Your task to perform on an android device: open app "Facebook Messenger" Image 0: 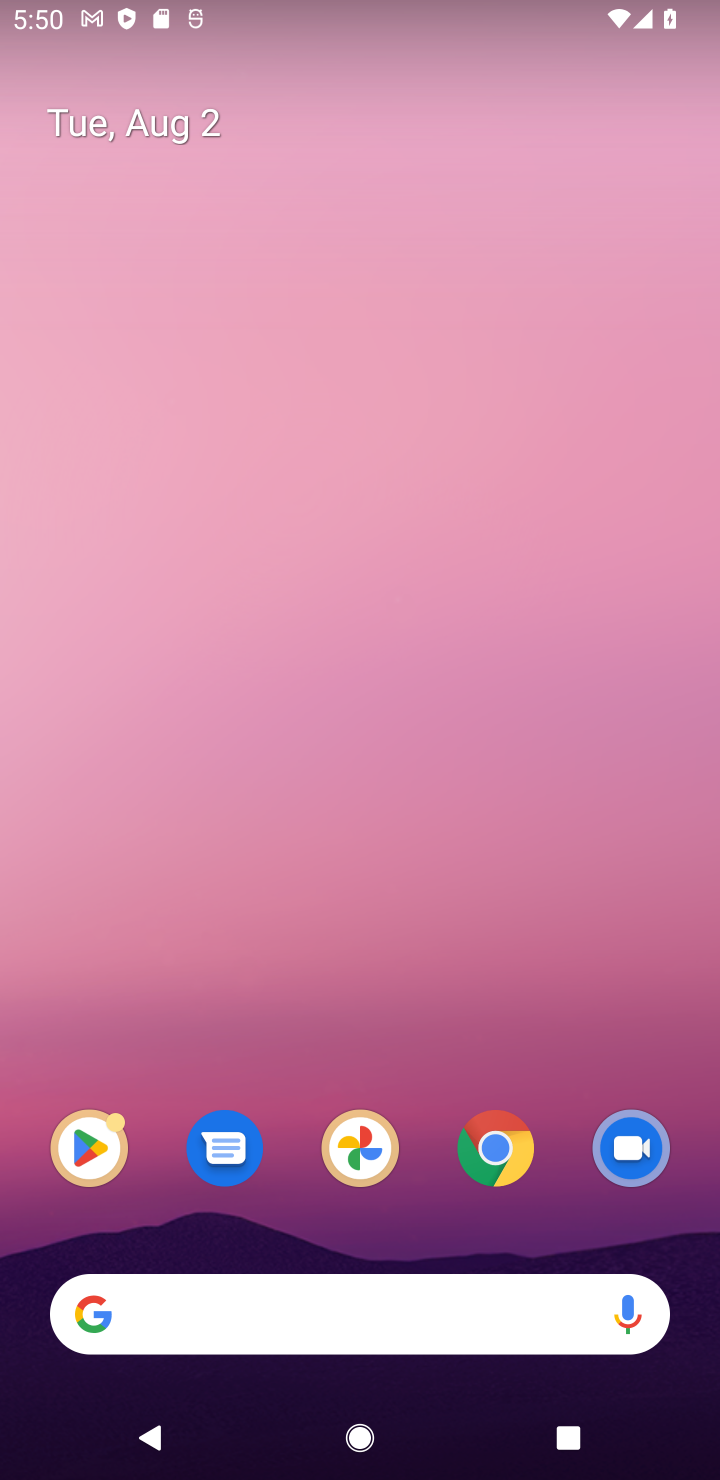
Step 0: drag from (681, 1228) to (383, 187)
Your task to perform on an android device: open app "Facebook Messenger" Image 1: 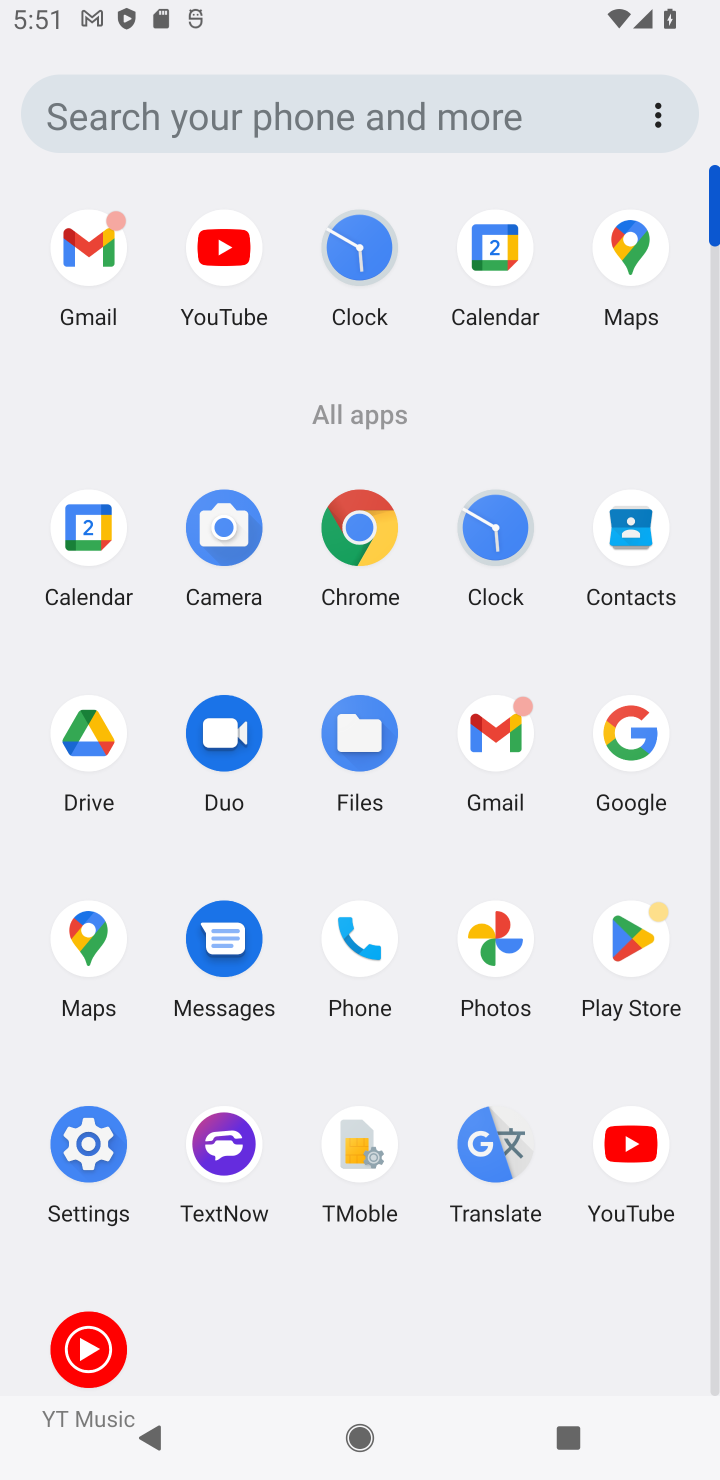
Step 1: click (618, 922)
Your task to perform on an android device: open app "Facebook Messenger" Image 2: 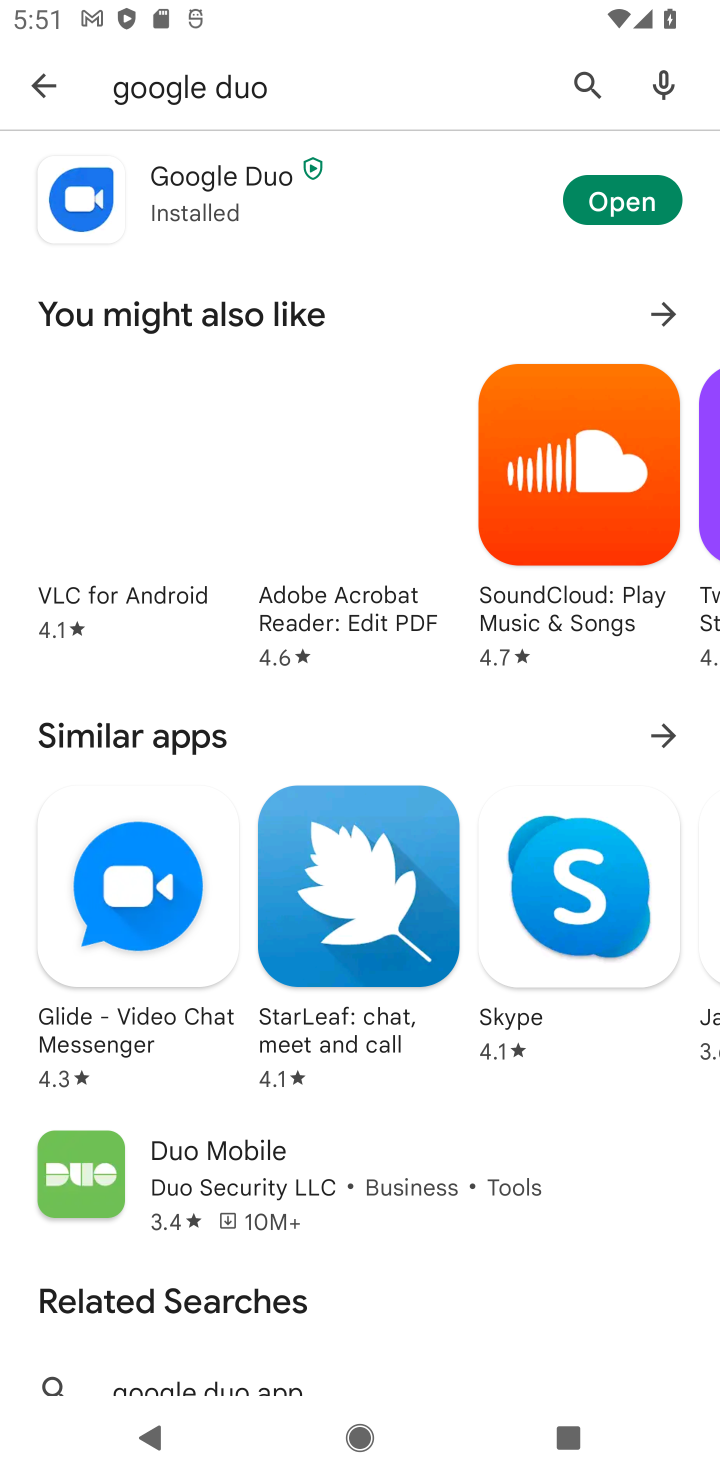
Step 2: press back button
Your task to perform on an android device: open app "Facebook Messenger" Image 3: 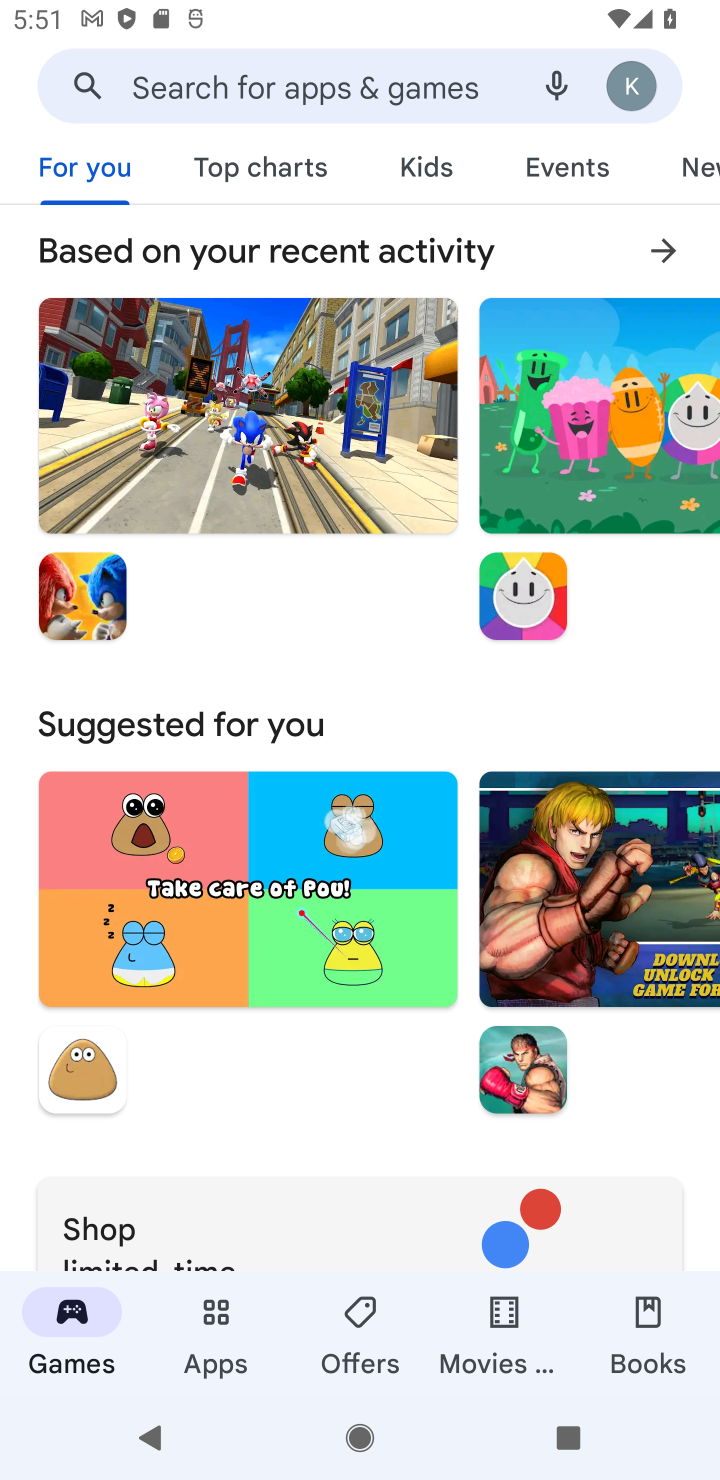
Step 3: click (196, 82)
Your task to perform on an android device: open app "Facebook Messenger" Image 4: 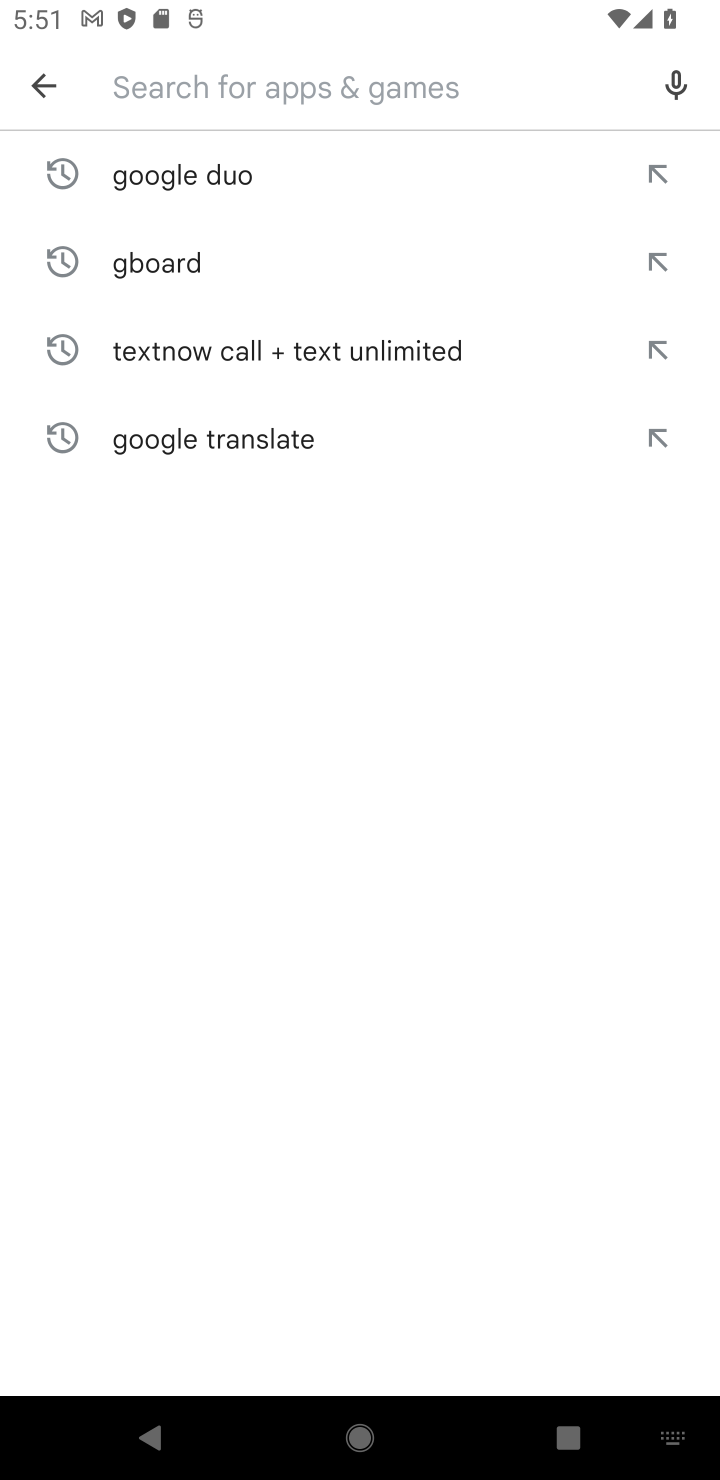
Step 4: type "Facebook Messenger"
Your task to perform on an android device: open app "Facebook Messenger" Image 5: 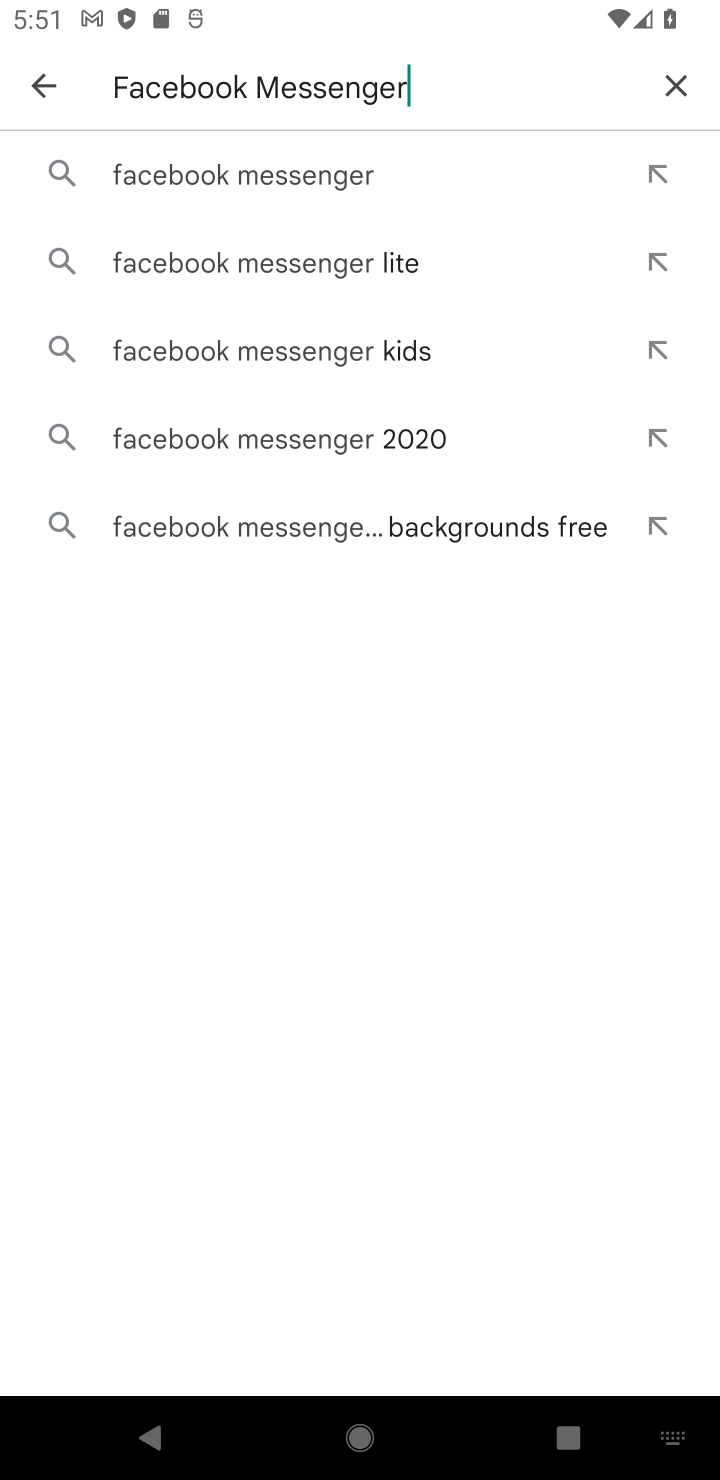
Step 5: click (192, 184)
Your task to perform on an android device: open app "Facebook Messenger" Image 6: 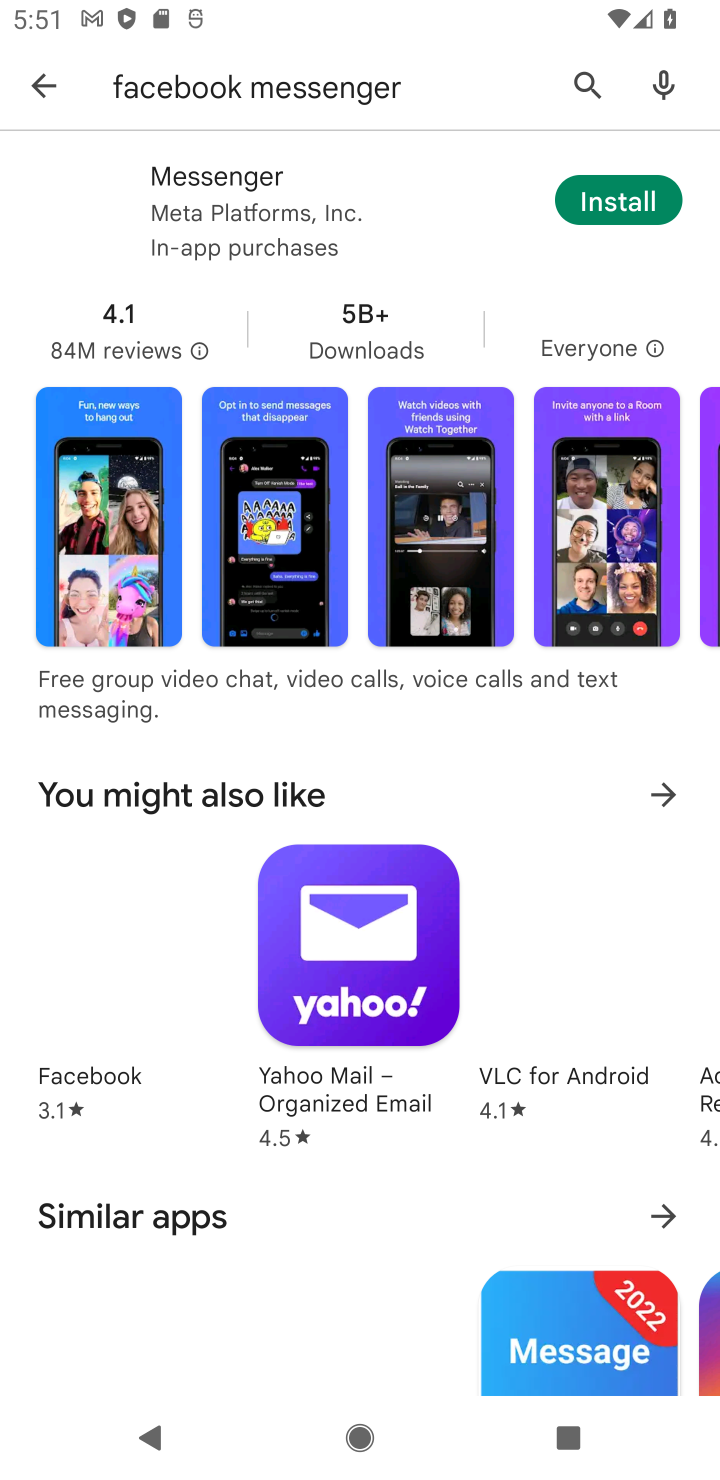
Step 6: task complete